Your task to perform on an android device: uninstall "HBO Max: Stream TV & Movies" Image 0: 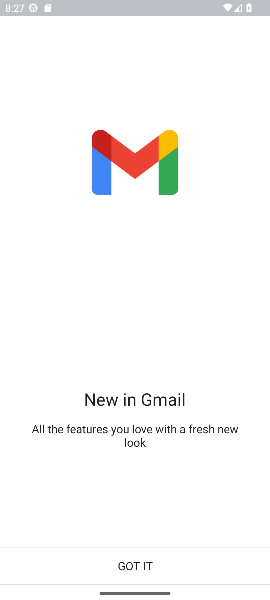
Step 0: click (124, 562)
Your task to perform on an android device: uninstall "HBO Max: Stream TV & Movies" Image 1: 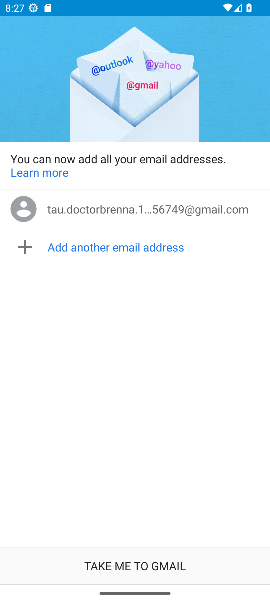
Step 1: press home button
Your task to perform on an android device: uninstall "HBO Max: Stream TV & Movies" Image 2: 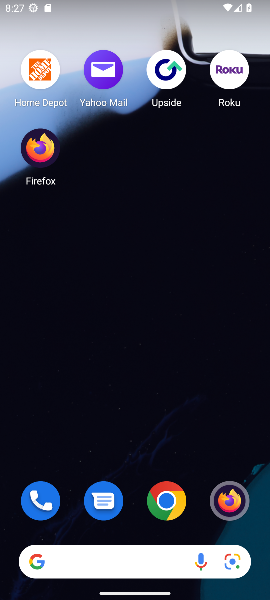
Step 2: drag from (119, 527) to (135, 208)
Your task to perform on an android device: uninstall "HBO Max: Stream TV & Movies" Image 3: 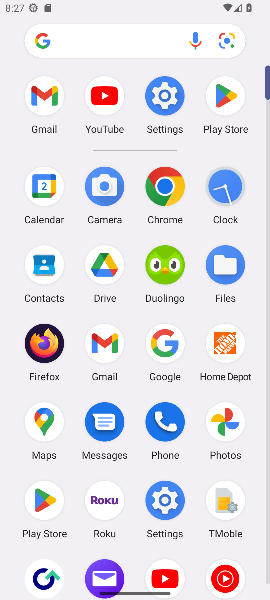
Step 3: click (225, 90)
Your task to perform on an android device: uninstall "HBO Max: Stream TV & Movies" Image 4: 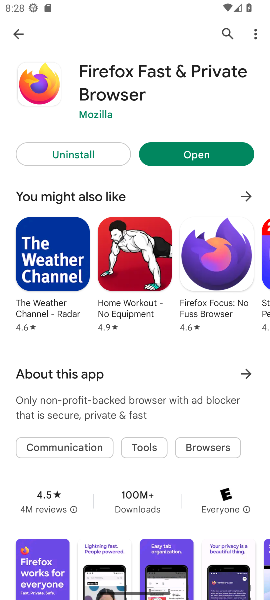
Step 4: click (229, 28)
Your task to perform on an android device: uninstall "HBO Max: Stream TV & Movies" Image 5: 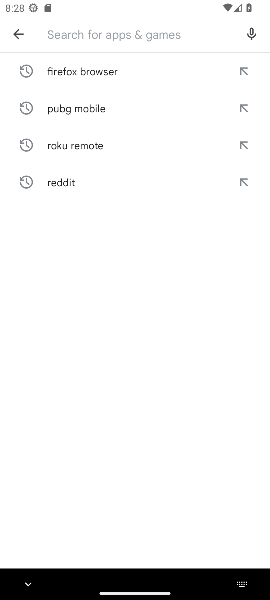
Step 5: click (191, 362)
Your task to perform on an android device: uninstall "HBO Max: Stream TV & Movies" Image 6: 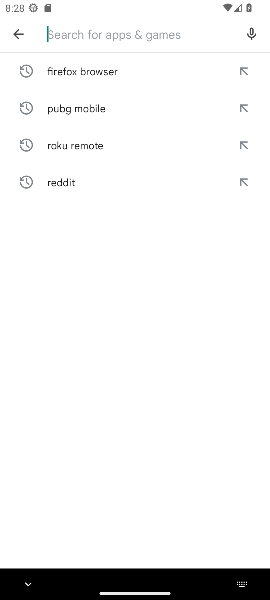
Step 6: type "HBO Max: Stream TV & Movies"
Your task to perform on an android device: uninstall "HBO Max: Stream TV & Movies" Image 7: 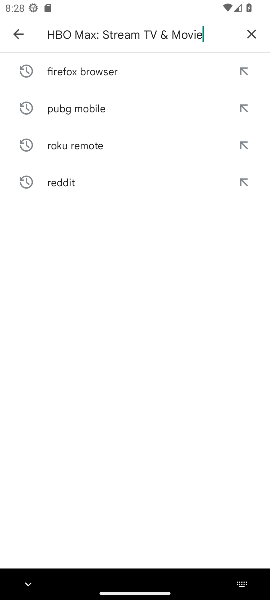
Step 7: type ""
Your task to perform on an android device: uninstall "HBO Max: Stream TV & Movies" Image 8: 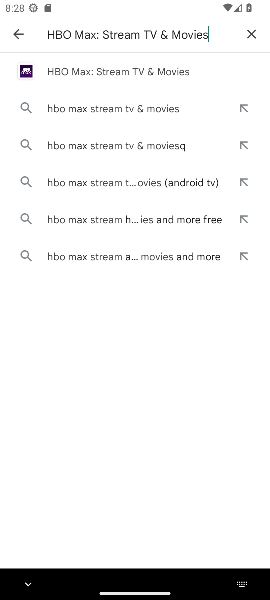
Step 8: click (75, 73)
Your task to perform on an android device: uninstall "HBO Max: Stream TV & Movies" Image 9: 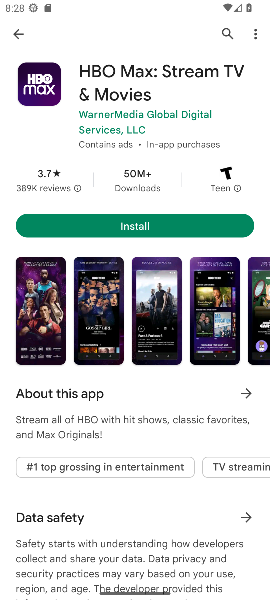
Step 9: task complete